Your task to perform on an android device: turn on priority inbox in the gmail app Image 0: 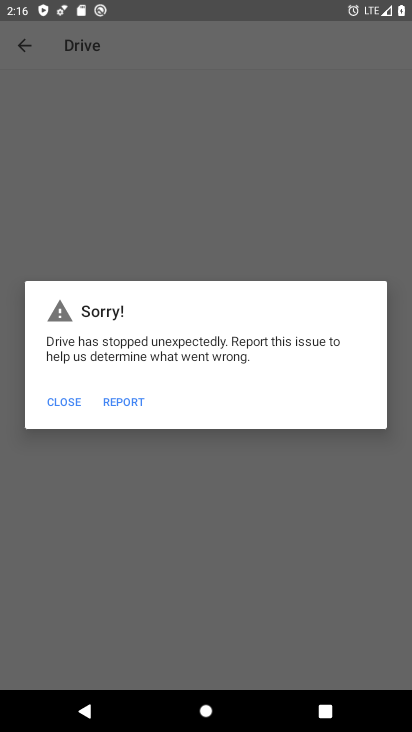
Step 0: press back button
Your task to perform on an android device: turn on priority inbox in the gmail app Image 1: 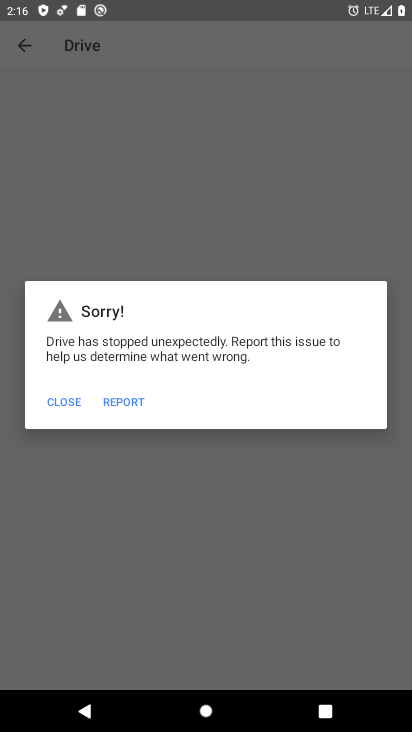
Step 1: press home button
Your task to perform on an android device: turn on priority inbox in the gmail app Image 2: 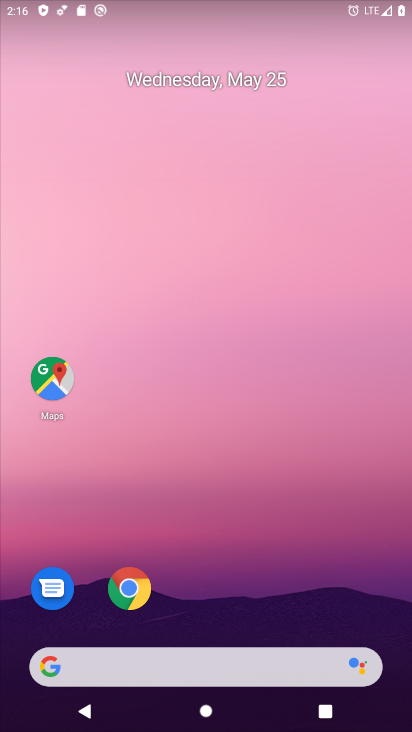
Step 2: drag from (259, 494) to (255, 26)
Your task to perform on an android device: turn on priority inbox in the gmail app Image 3: 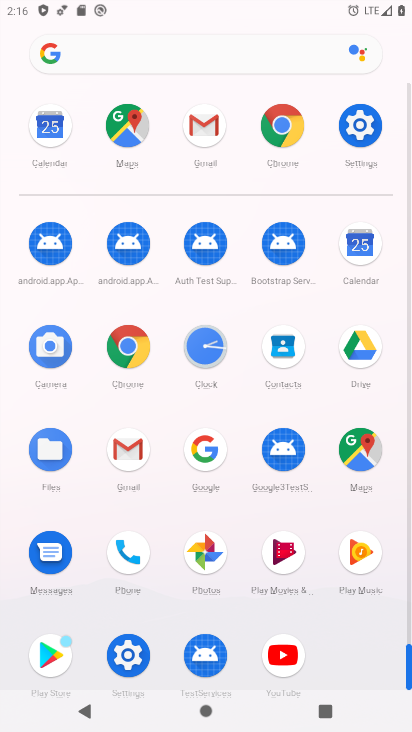
Step 3: drag from (4, 521) to (15, 280)
Your task to perform on an android device: turn on priority inbox in the gmail app Image 4: 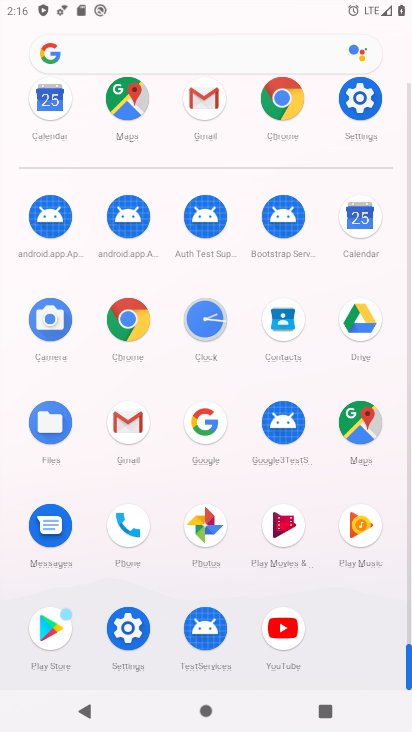
Step 4: click (124, 318)
Your task to perform on an android device: turn on priority inbox in the gmail app Image 5: 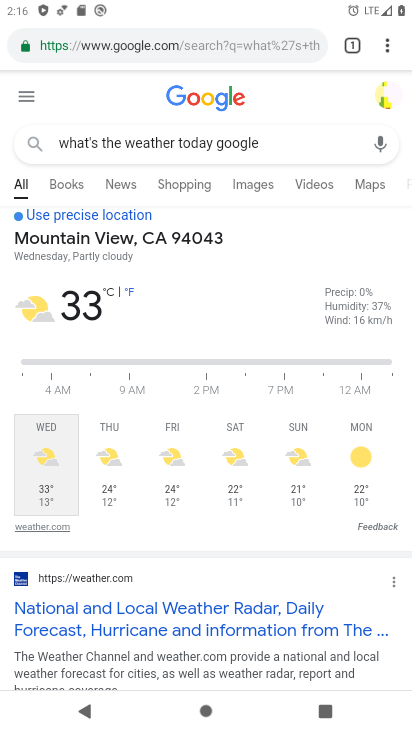
Step 5: drag from (389, 45) to (249, 508)
Your task to perform on an android device: turn on priority inbox in the gmail app Image 6: 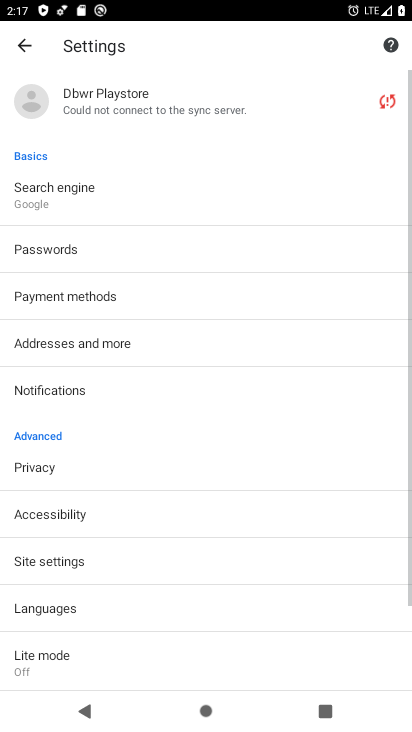
Step 6: drag from (158, 600) to (196, 186)
Your task to perform on an android device: turn on priority inbox in the gmail app Image 7: 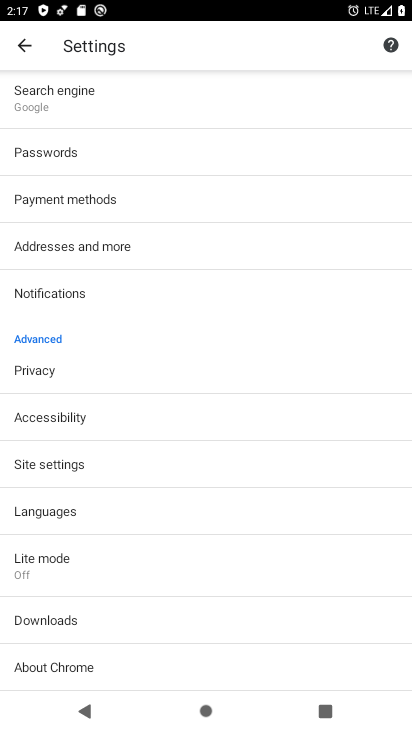
Step 7: drag from (164, 543) to (180, 178)
Your task to perform on an android device: turn on priority inbox in the gmail app Image 8: 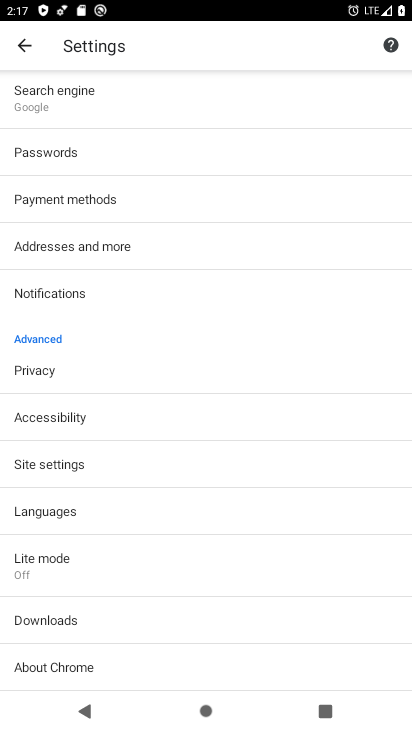
Step 8: drag from (112, 583) to (159, 261)
Your task to perform on an android device: turn on priority inbox in the gmail app Image 9: 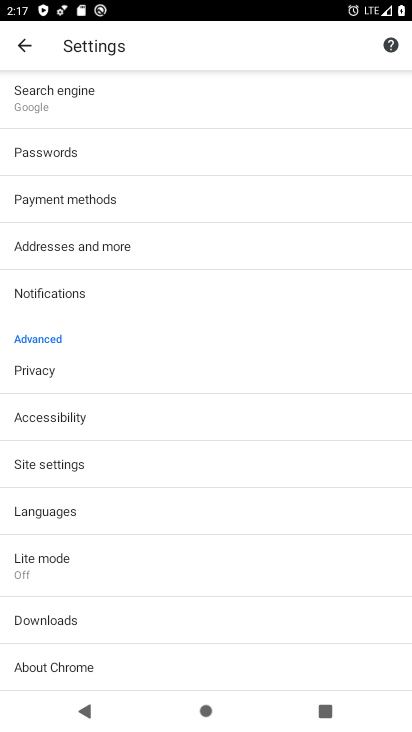
Step 9: drag from (164, 203) to (171, 619)
Your task to perform on an android device: turn on priority inbox in the gmail app Image 10: 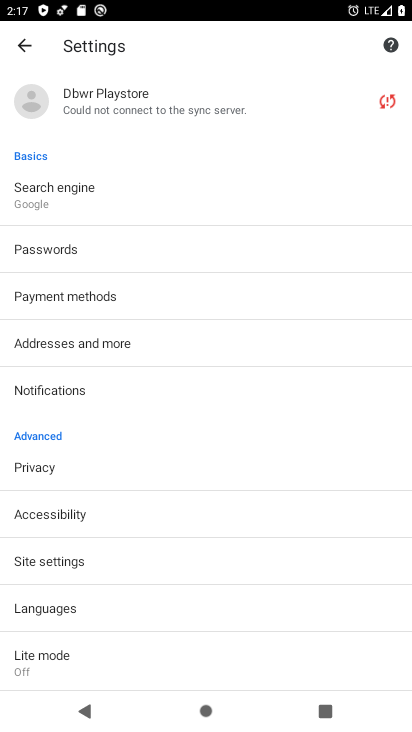
Step 10: press back button
Your task to perform on an android device: turn on priority inbox in the gmail app Image 11: 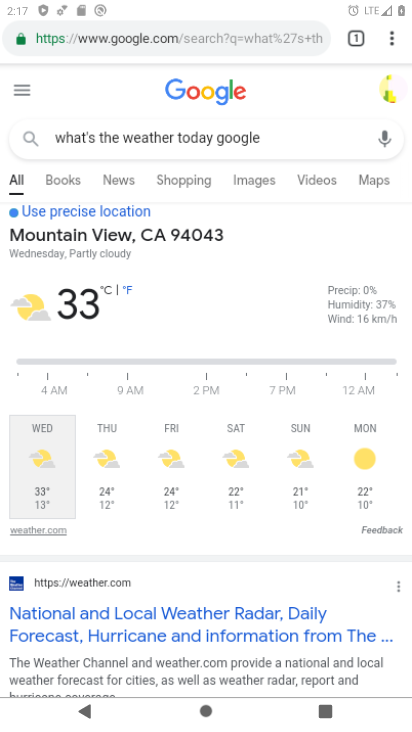
Step 11: press home button
Your task to perform on an android device: turn on priority inbox in the gmail app Image 12: 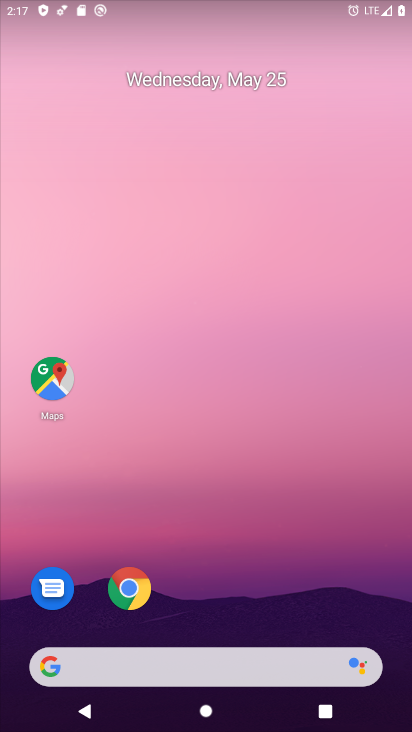
Step 12: drag from (279, 559) to (230, 77)
Your task to perform on an android device: turn on priority inbox in the gmail app Image 13: 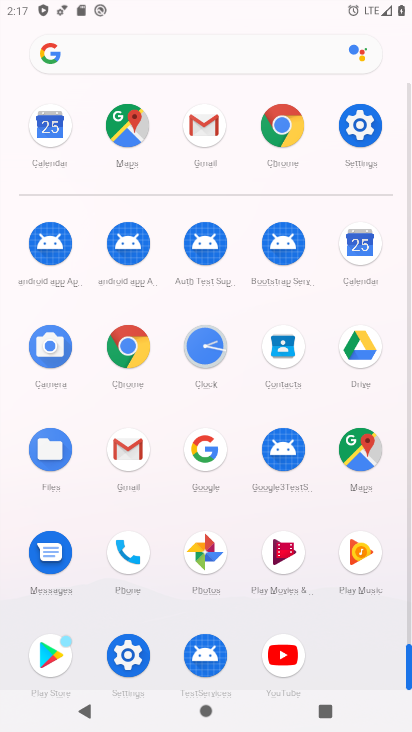
Step 13: drag from (15, 596) to (11, 306)
Your task to perform on an android device: turn on priority inbox in the gmail app Image 14: 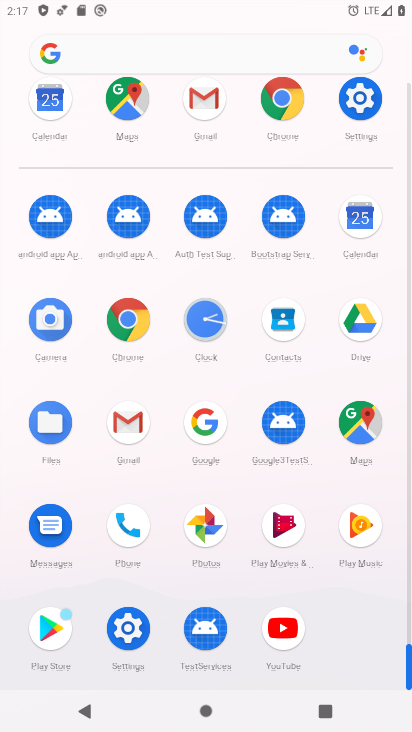
Step 14: drag from (21, 520) to (12, 262)
Your task to perform on an android device: turn on priority inbox in the gmail app Image 15: 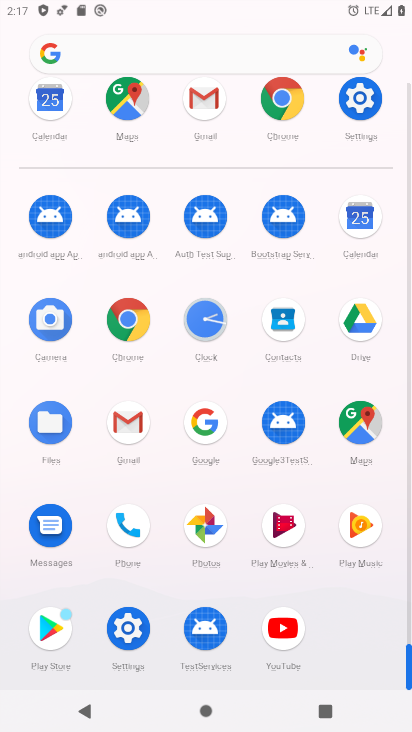
Step 15: click (129, 414)
Your task to perform on an android device: turn on priority inbox in the gmail app Image 16: 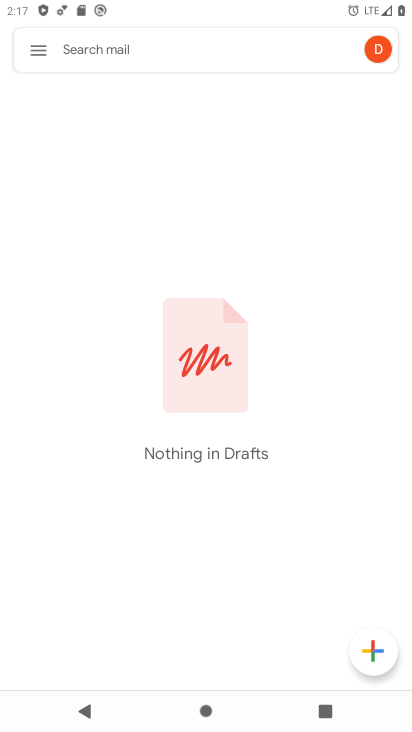
Step 16: click (40, 44)
Your task to perform on an android device: turn on priority inbox in the gmail app Image 17: 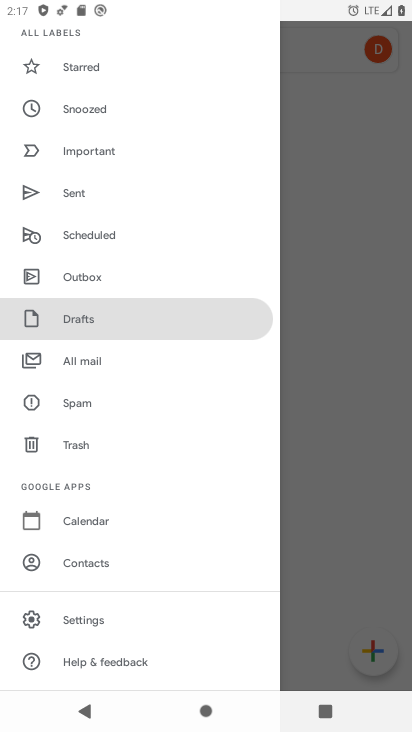
Step 17: click (89, 622)
Your task to perform on an android device: turn on priority inbox in the gmail app Image 18: 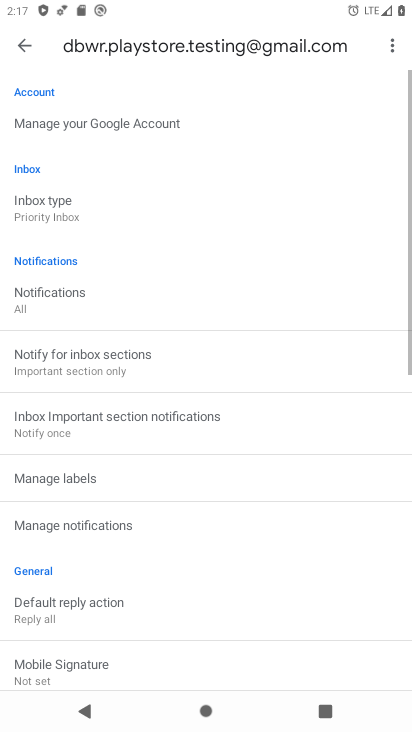
Step 18: click (81, 210)
Your task to perform on an android device: turn on priority inbox in the gmail app Image 19: 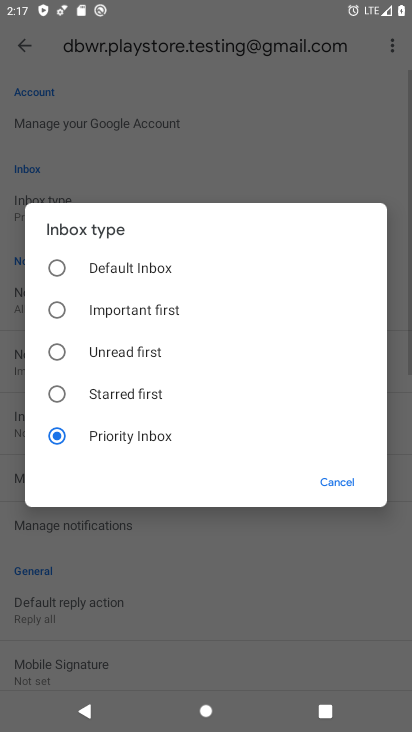
Step 19: click (105, 428)
Your task to perform on an android device: turn on priority inbox in the gmail app Image 20: 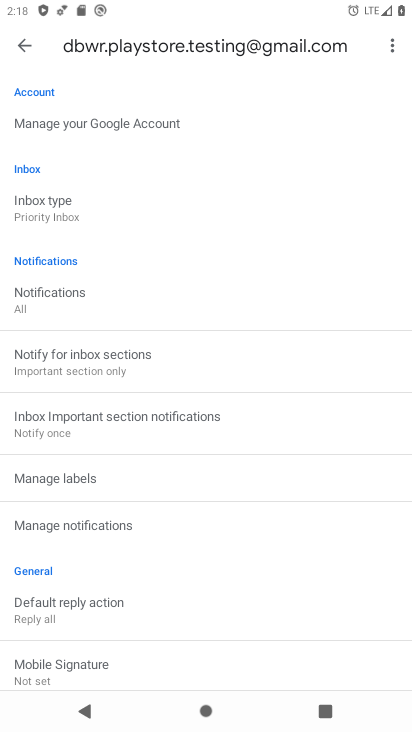
Step 20: task complete